Your task to perform on an android device: Go to Google Image 0: 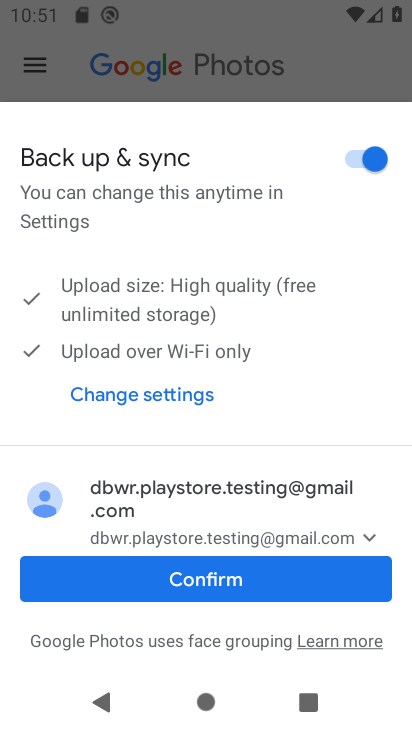
Step 0: press home button
Your task to perform on an android device: Go to Google Image 1: 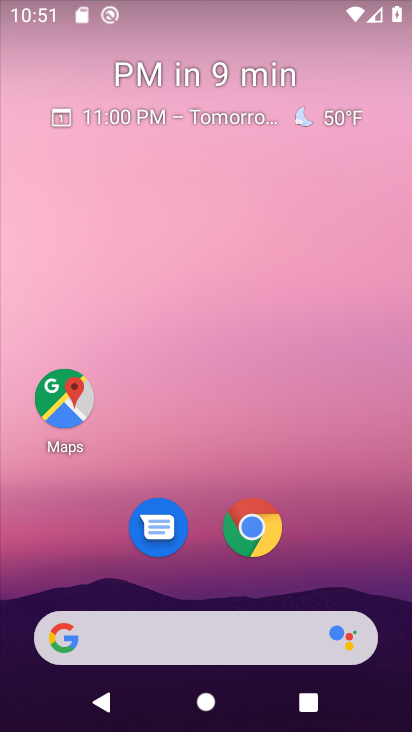
Step 1: drag from (397, 571) to (287, 142)
Your task to perform on an android device: Go to Google Image 2: 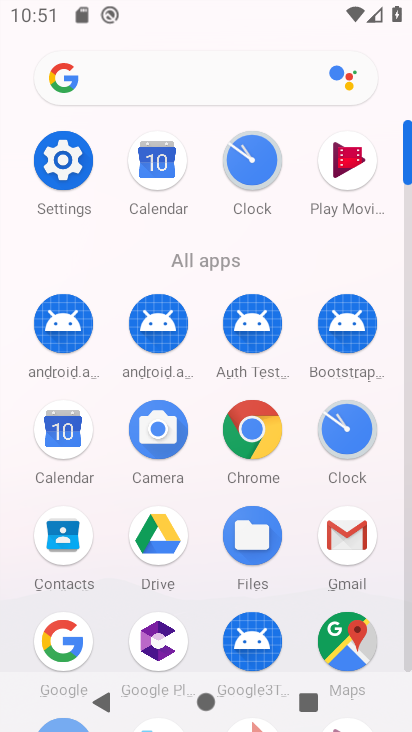
Step 2: click (66, 639)
Your task to perform on an android device: Go to Google Image 3: 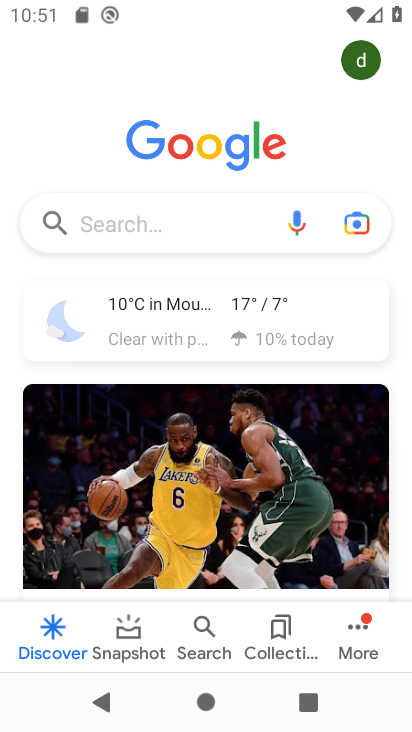
Step 3: task complete